Your task to perform on an android device: Open Wikipedia Image 0: 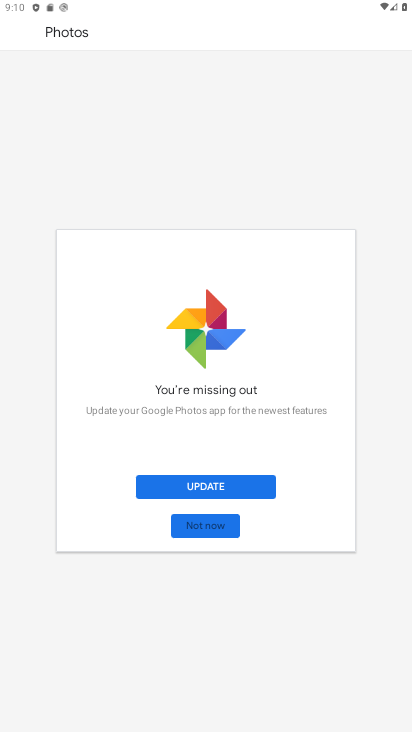
Step 0: press home button
Your task to perform on an android device: Open Wikipedia Image 1: 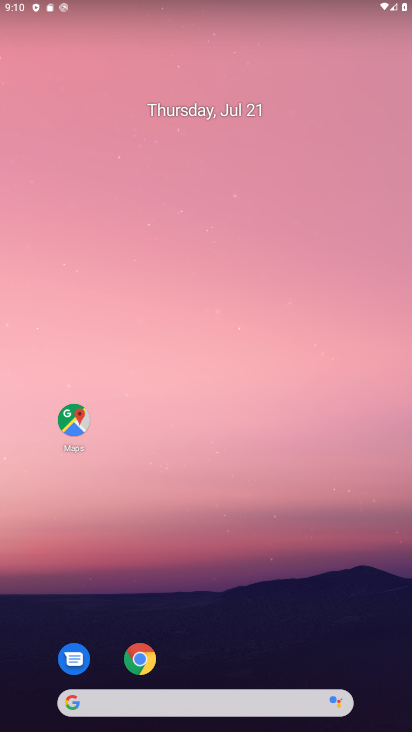
Step 1: click (144, 662)
Your task to perform on an android device: Open Wikipedia Image 2: 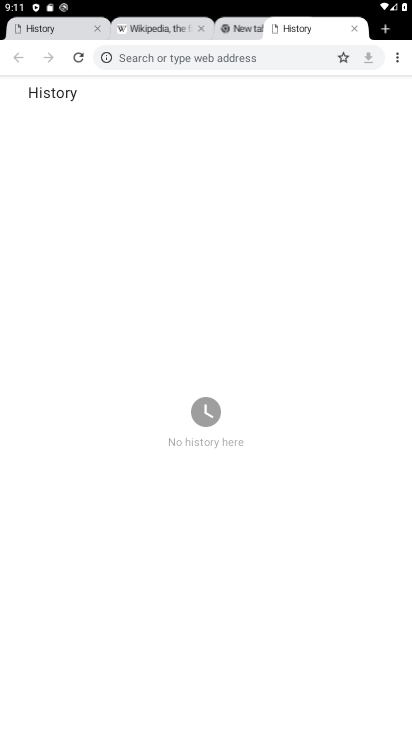
Step 2: click (163, 29)
Your task to perform on an android device: Open Wikipedia Image 3: 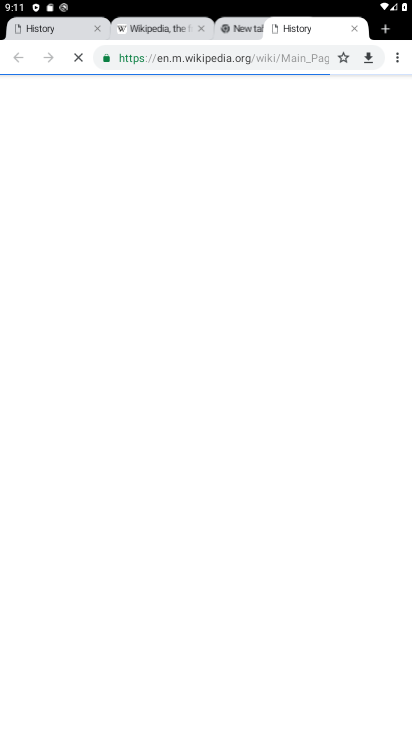
Step 3: task complete